Your task to perform on an android device: open chrome and create a bookmark for the current page Image 0: 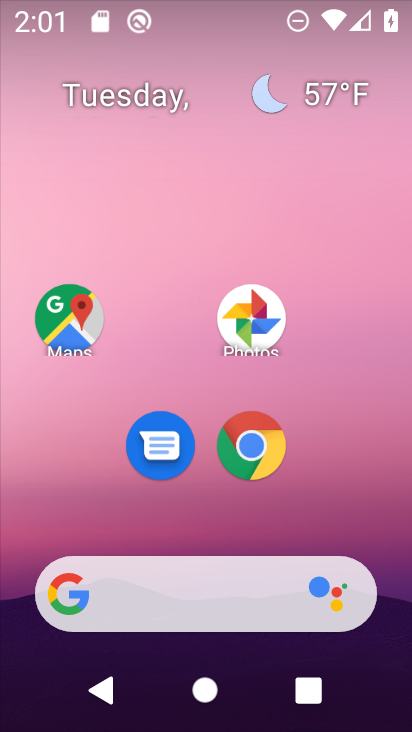
Step 0: drag from (393, 552) to (379, 236)
Your task to perform on an android device: open chrome and create a bookmark for the current page Image 1: 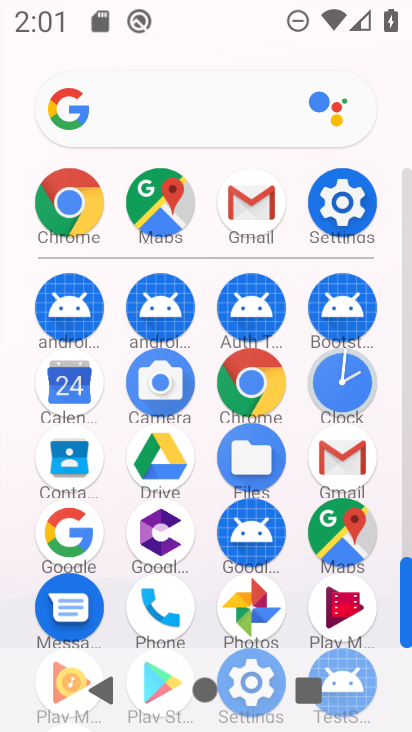
Step 1: click (256, 392)
Your task to perform on an android device: open chrome and create a bookmark for the current page Image 2: 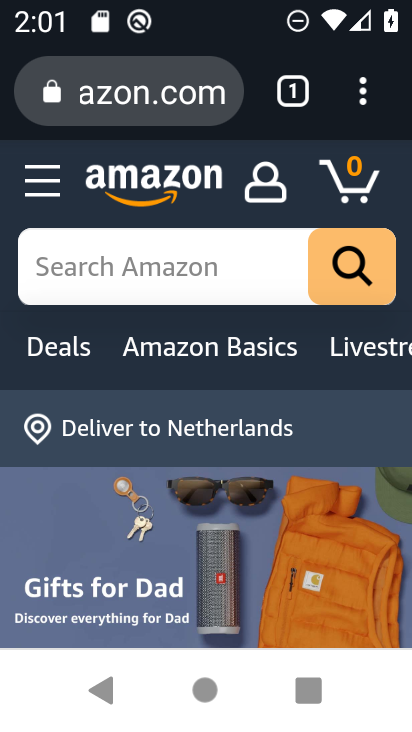
Step 2: click (364, 98)
Your task to perform on an android device: open chrome and create a bookmark for the current page Image 3: 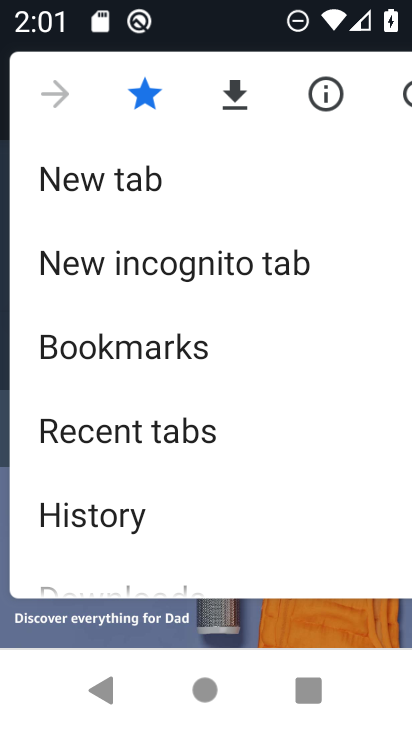
Step 3: task complete